Your task to perform on an android device: Open Chrome and go to settings Image 0: 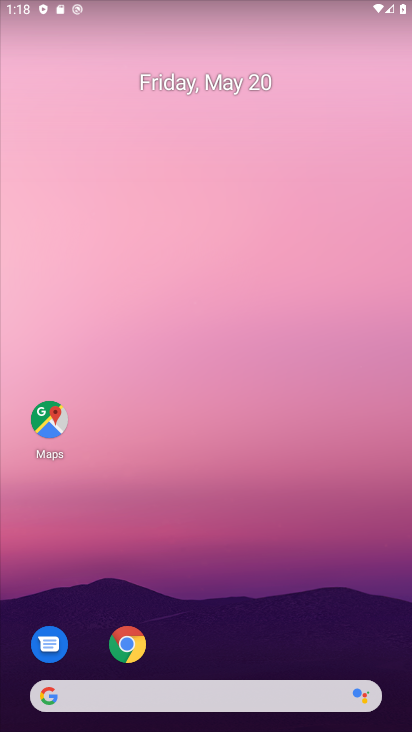
Step 0: click (113, 656)
Your task to perform on an android device: Open Chrome and go to settings Image 1: 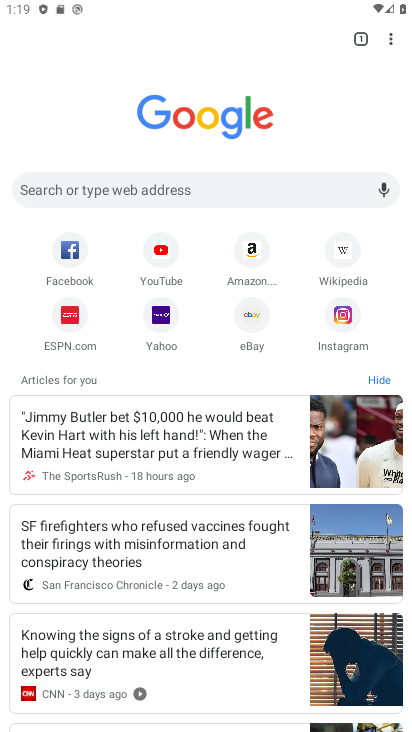
Step 1: click (401, 46)
Your task to perform on an android device: Open Chrome and go to settings Image 2: 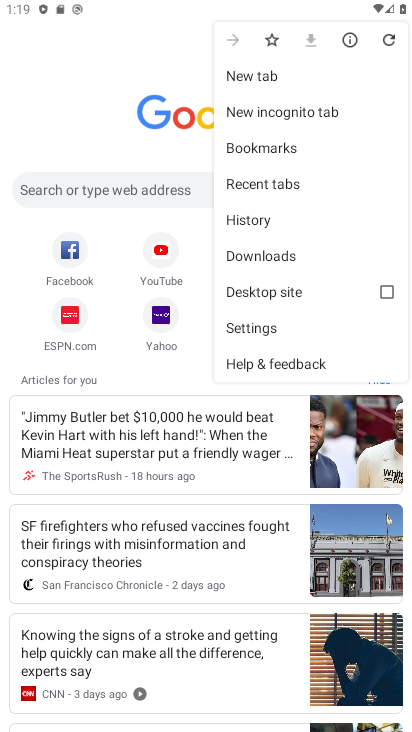
Step 2: click (262, 335)
Your task to perform on an android device: Open Chrome and go to settings Image 3: 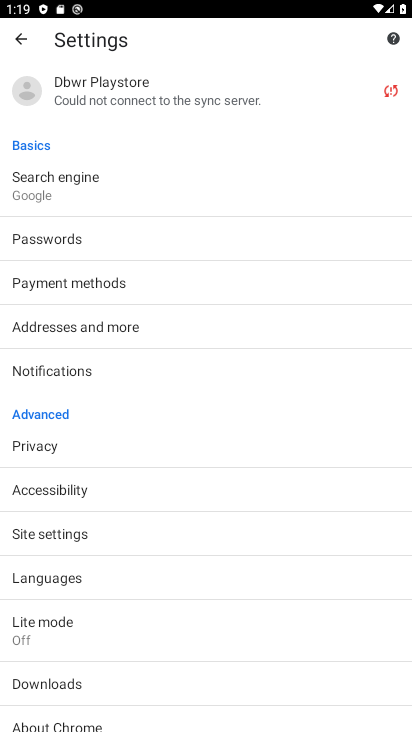
Step 3: task complete